Your task to perform on an android device: Search for macbook pro 15 inch on newegg, select the first entry, add it to the cart, then select checkout. Image 0: 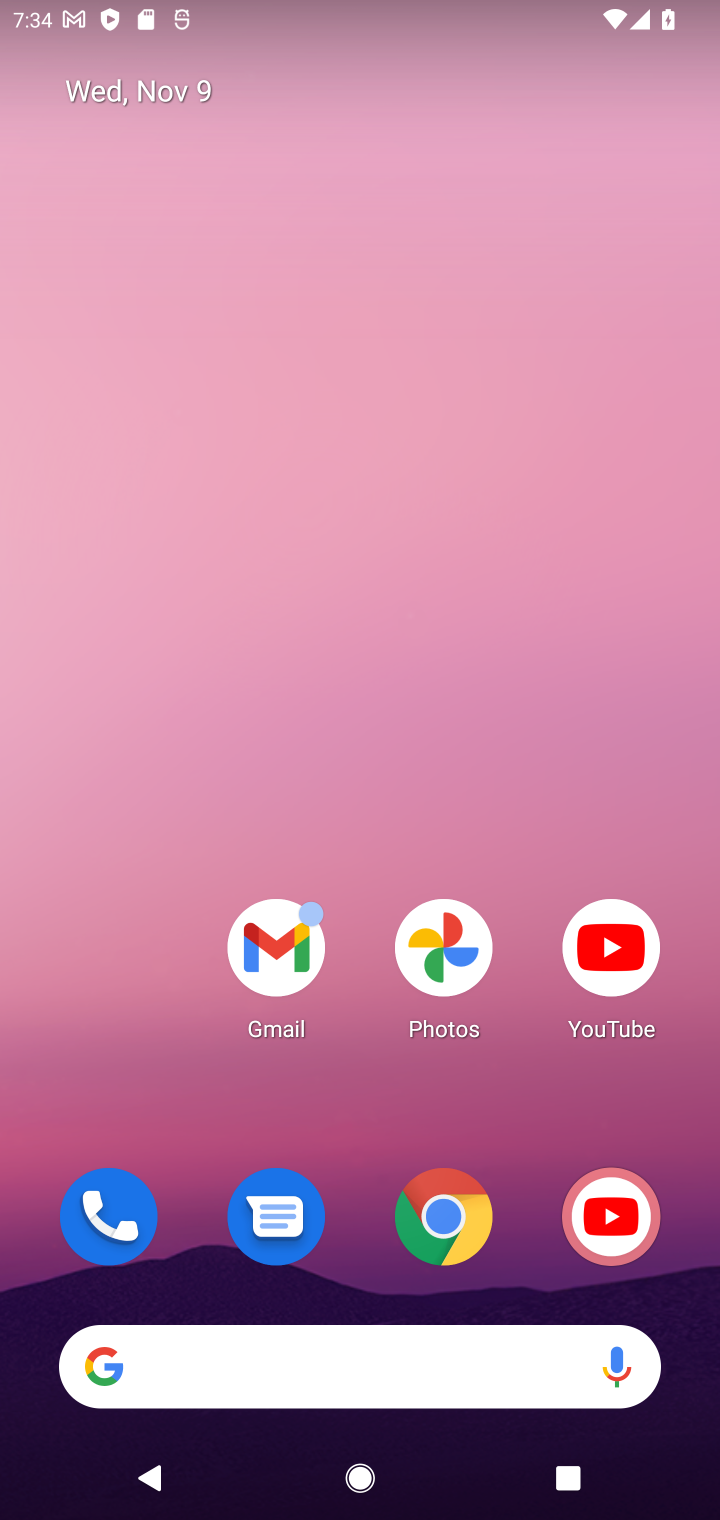
Step 0: drag from (358, 1093) to (446, 4)
Your task to perform on an android device: Search for macbook pro 15 inch on newegg, select the first entry, add it to the cart, then select checkout. Image 1: 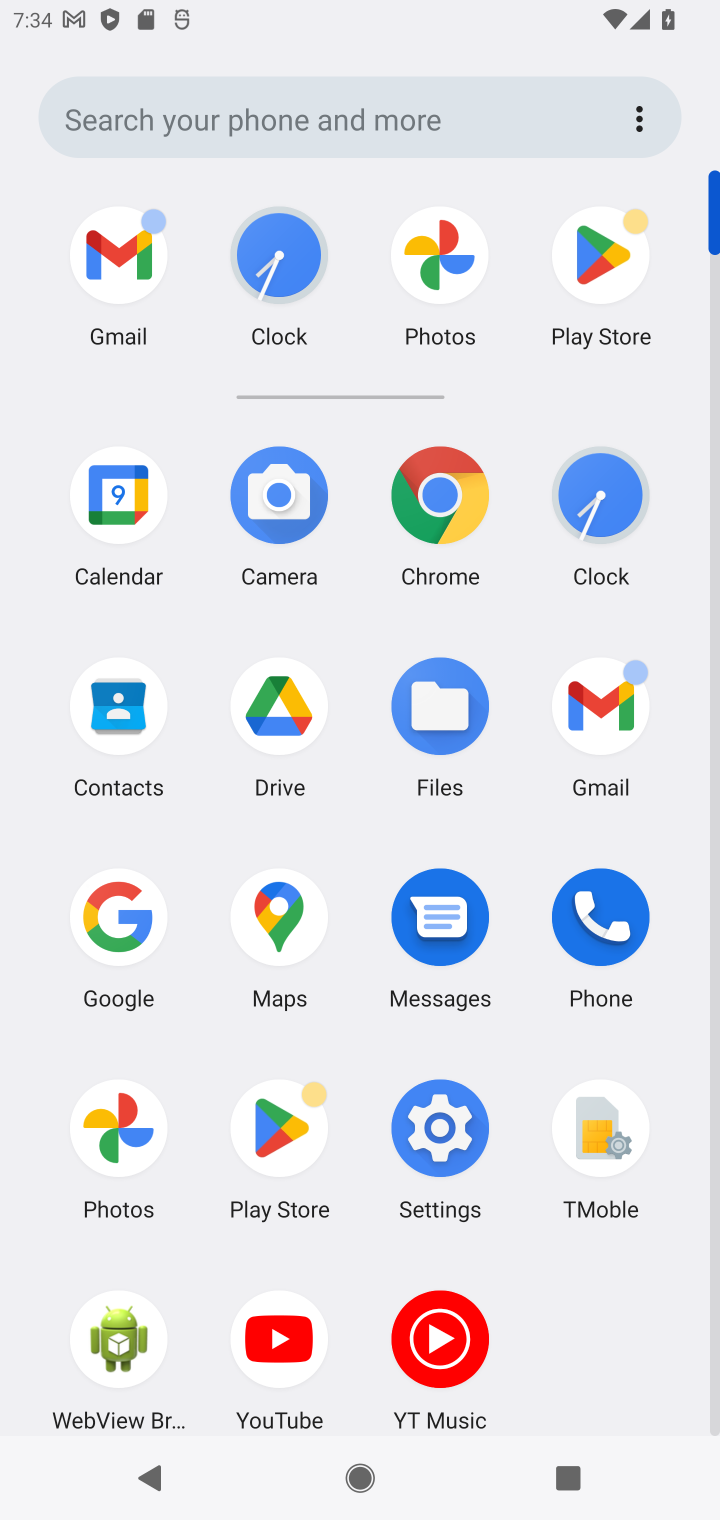
Step 1: click (446, 505)
Your task to perform on an android device: Search for macbook pro 15 inch on newegg, select the first entry, add it to the cart, then select checkout. Image 2: 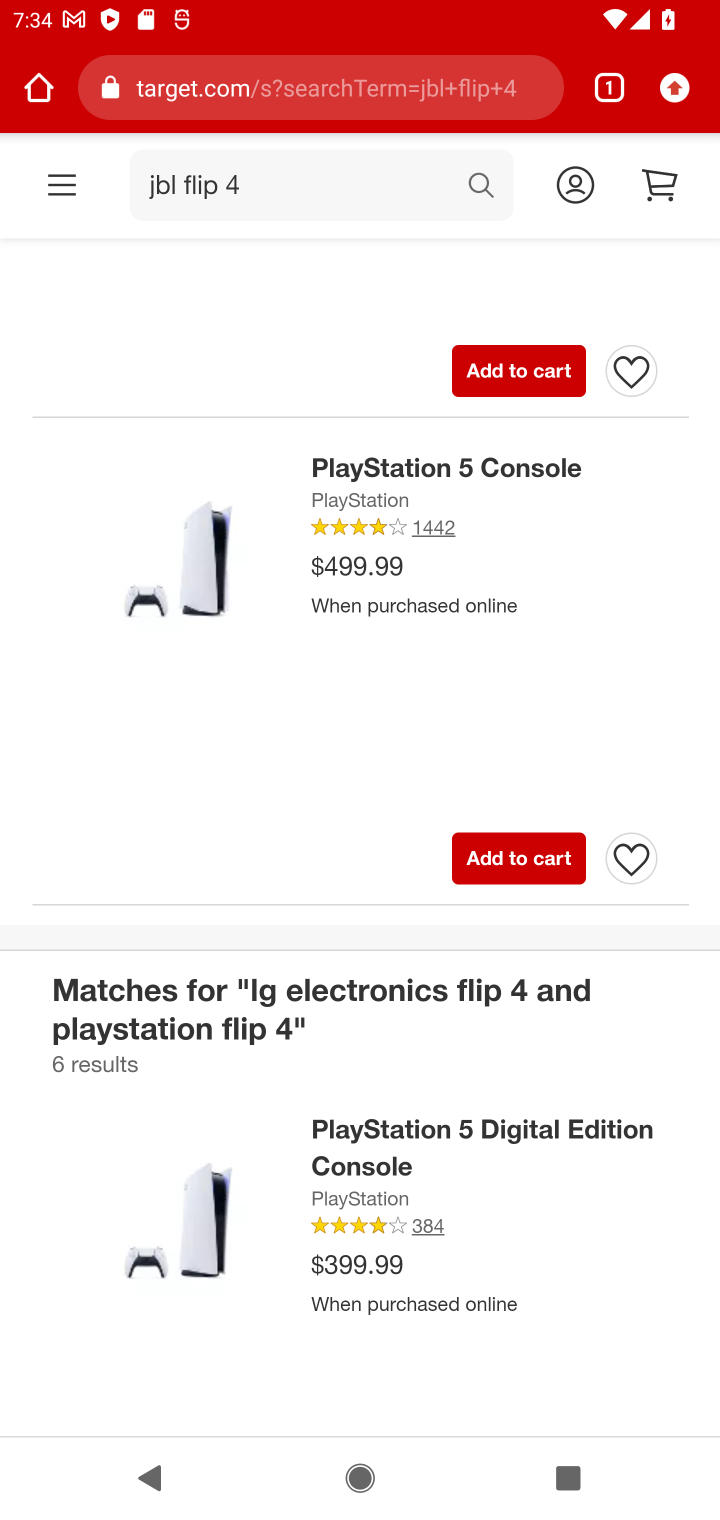
Step 2: click (382, 94)
Your task to perform on an android device: Search for macbook pro 15 inch on newegg, select the first entry, add it to the cart, then select checkout. Image 3: 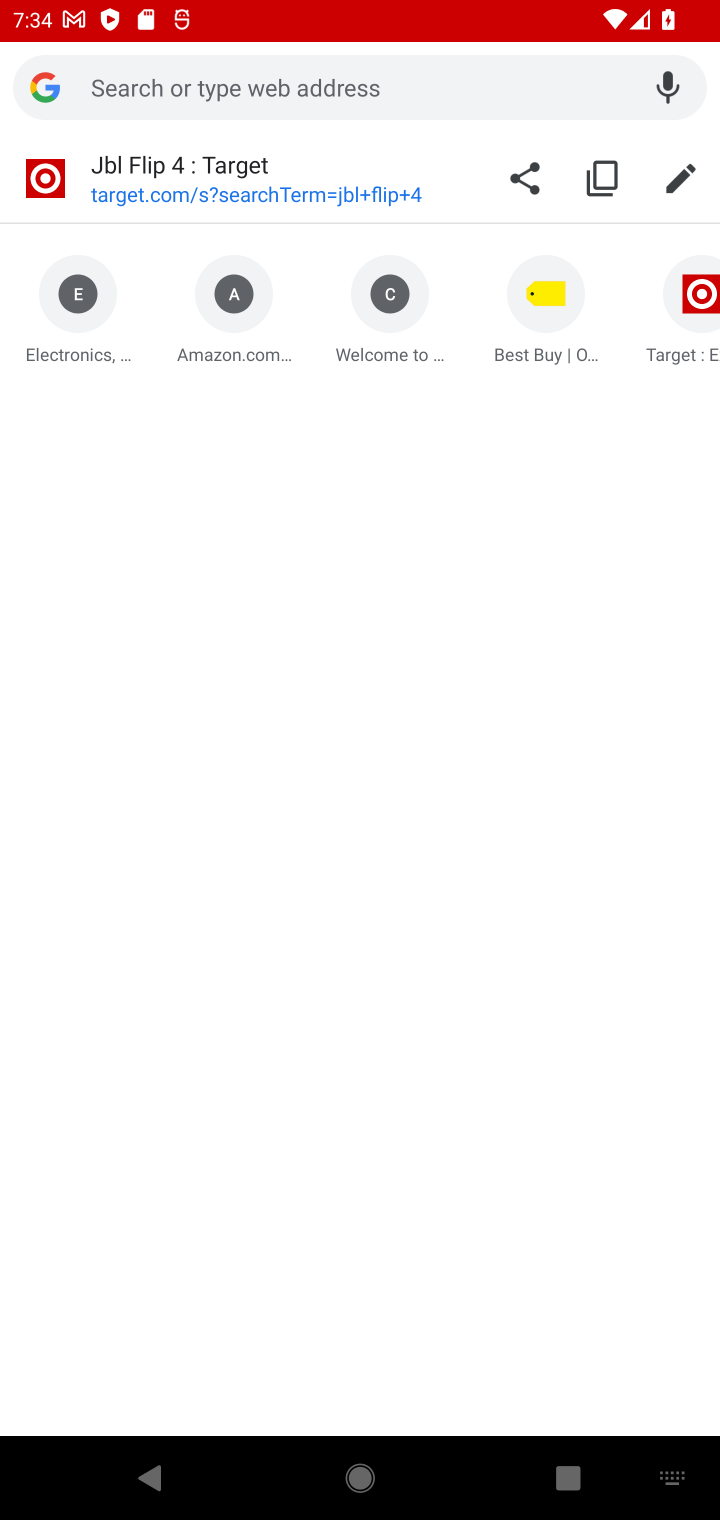
Step 3: type "newegg.com"
Your task to perform on an android device: Search for macbook pro 15 inch on newegg, select the first entry, add it to the cart, then select checkout. Image 4: 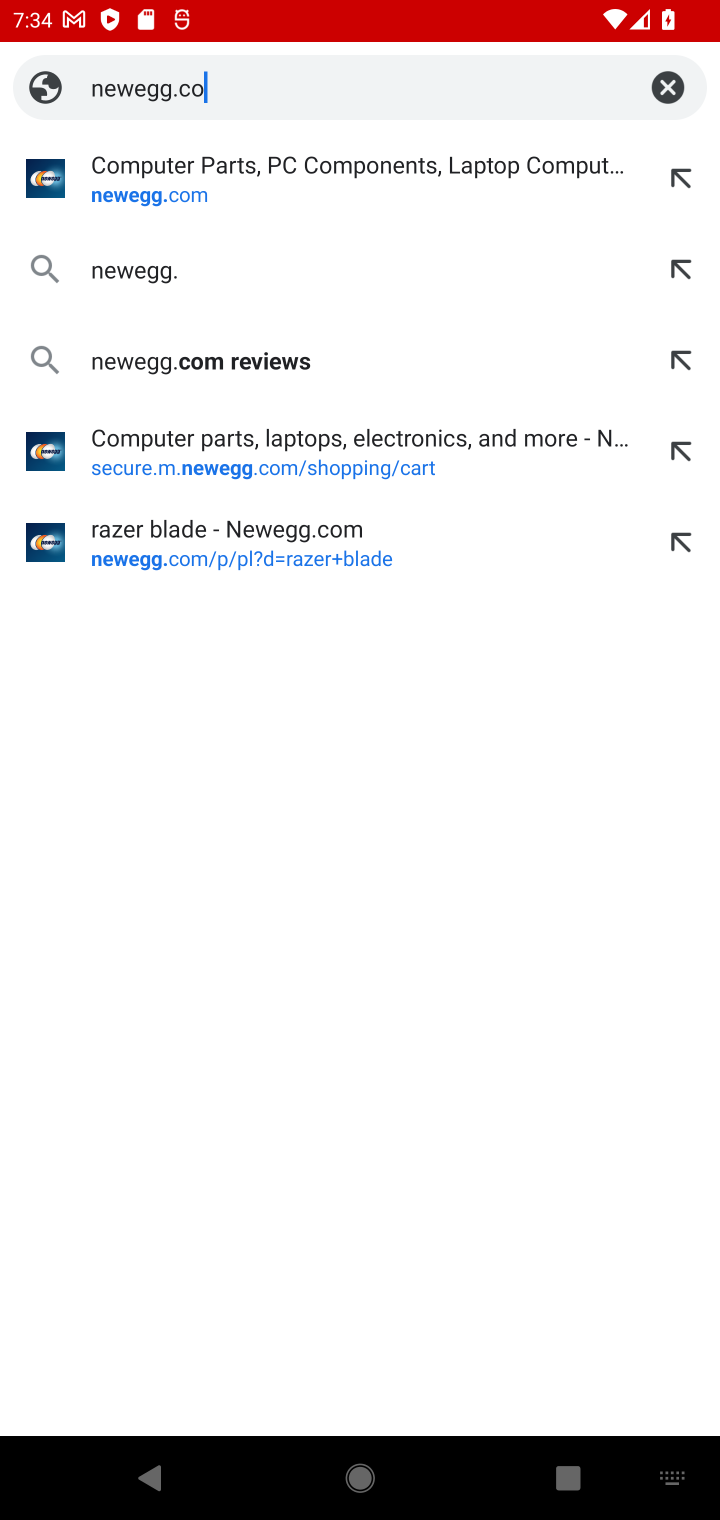
Step 4: press enter
Your task to perform on an android device: Search for macbook pro 15 inch on newegg, select the first entry, add it to the cart, then select checkout. Image 5: 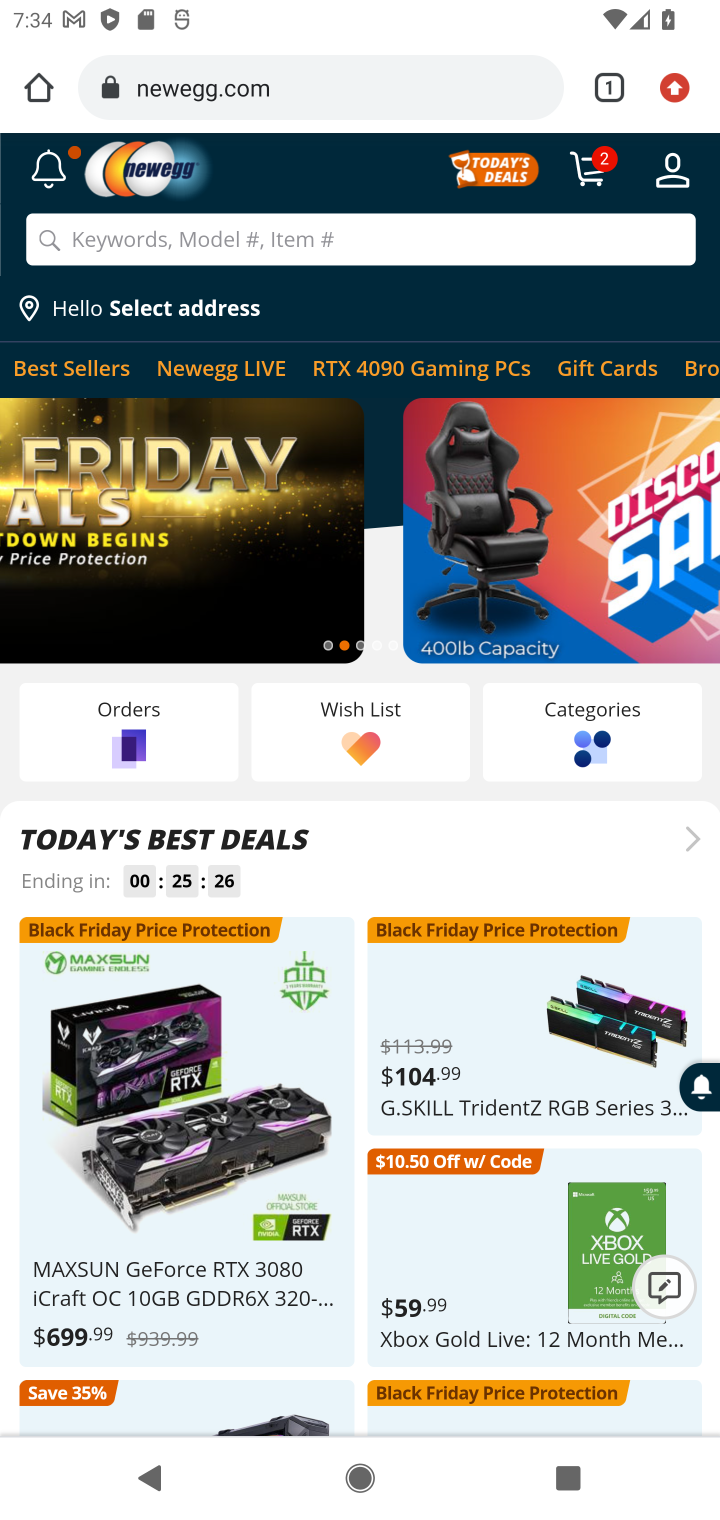
Step 5: click (390, 247)
Your task to perform on an android device: Search for macbook pro 15 inch on newegg, select the first entry, add it to the cart, then select checkout. Image 6: 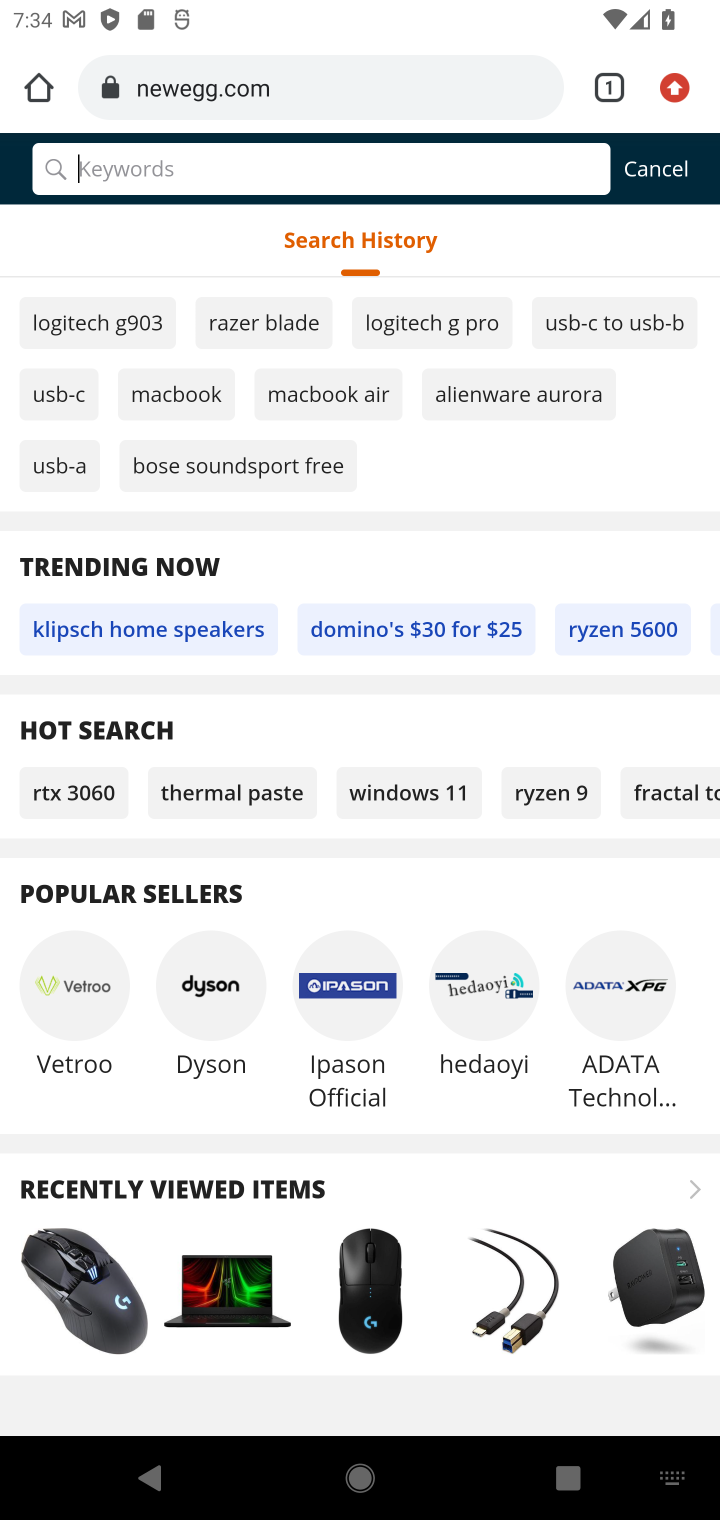
Step 6: type "macbook pro 15 inch"
Your task to perform on an android device: Search for macbook pro 15 inch on newegg, select the first entry, add it to the cart, then select checkout. Image 7: 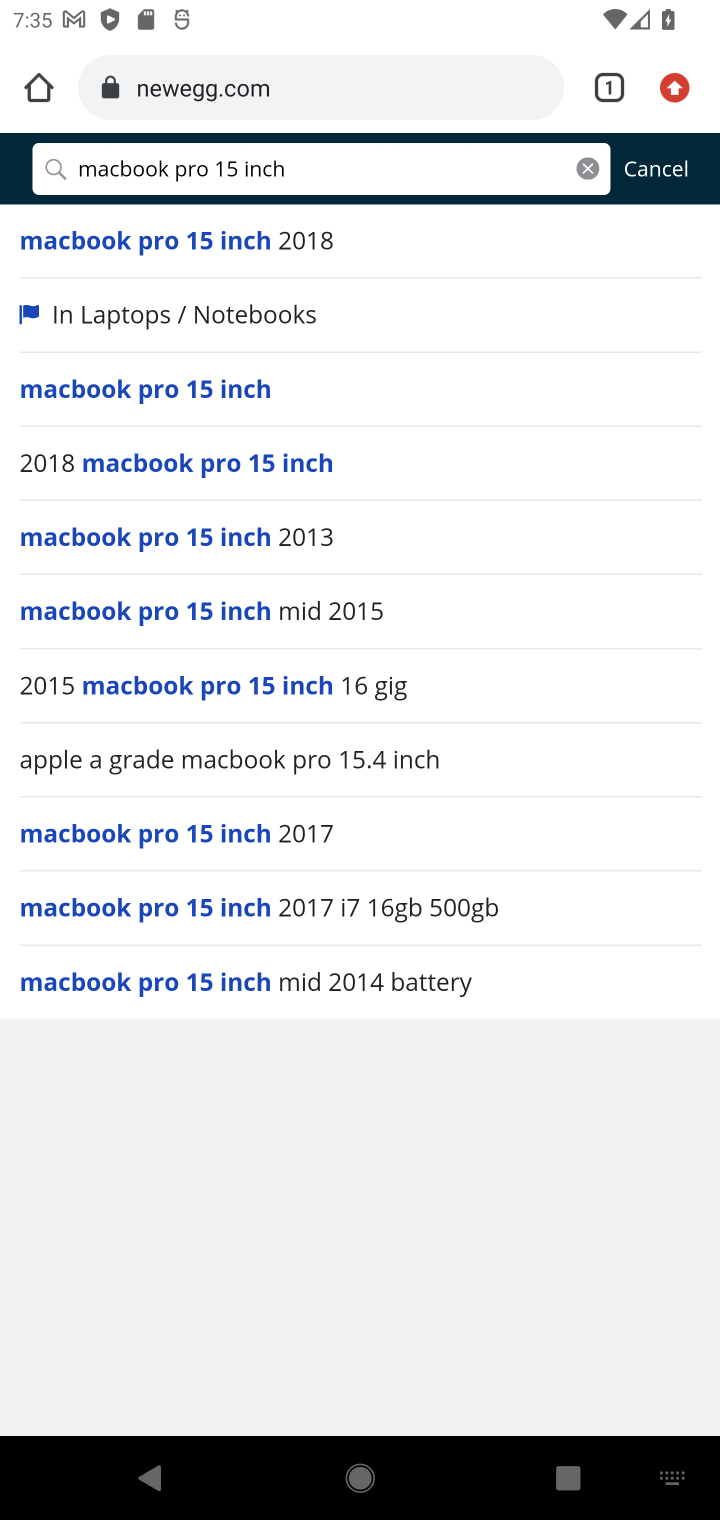
Step 7: press enter
Your task to perform on an android device: Search for macbook pro 15 inch on newegg, select the first entry, add it to the cart, then select checkout. Image 8: 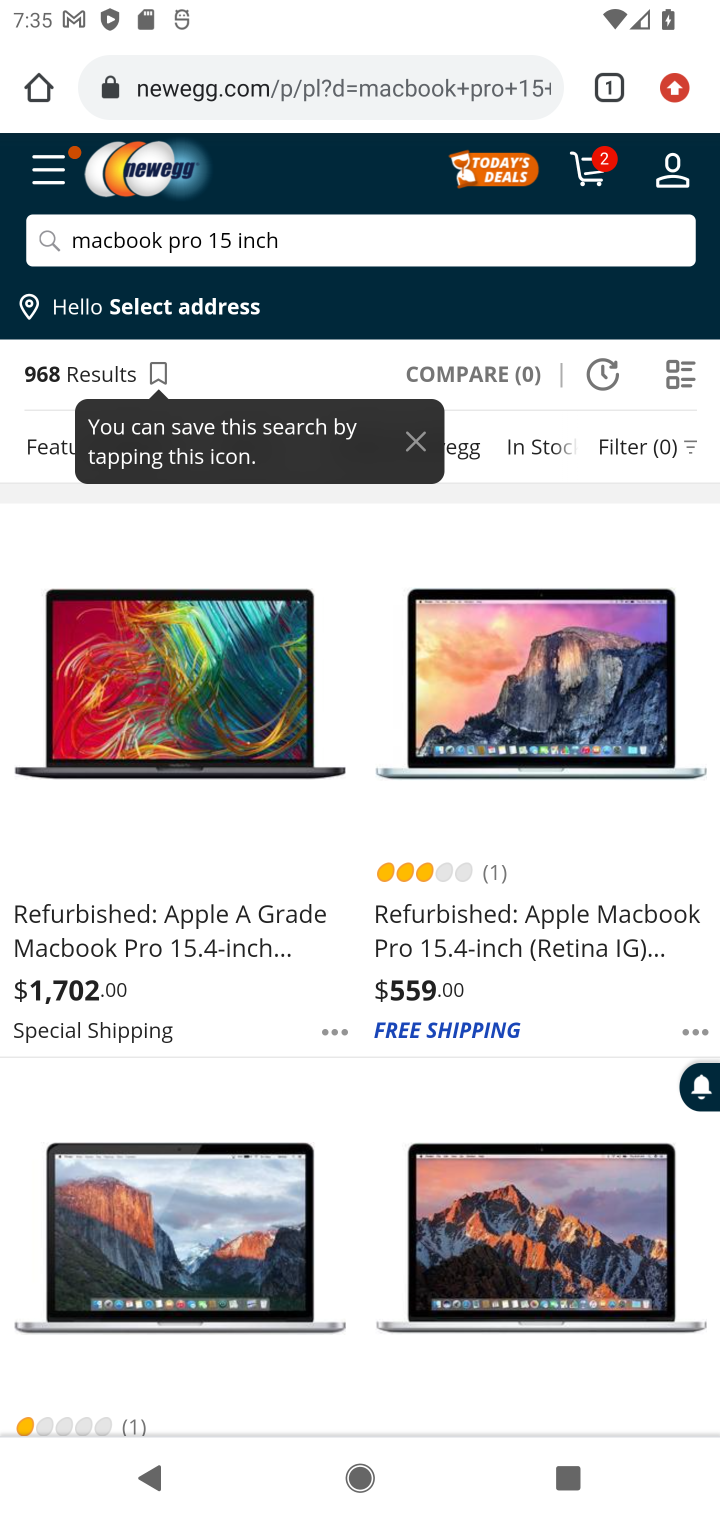
Step 8: drag from (353, 1318) to (497, 654)
Your task to perform on an android device: Search for macbook pro 15 inch on newegg, select the first entry, add it to the cart, then select checkout. Image 9: 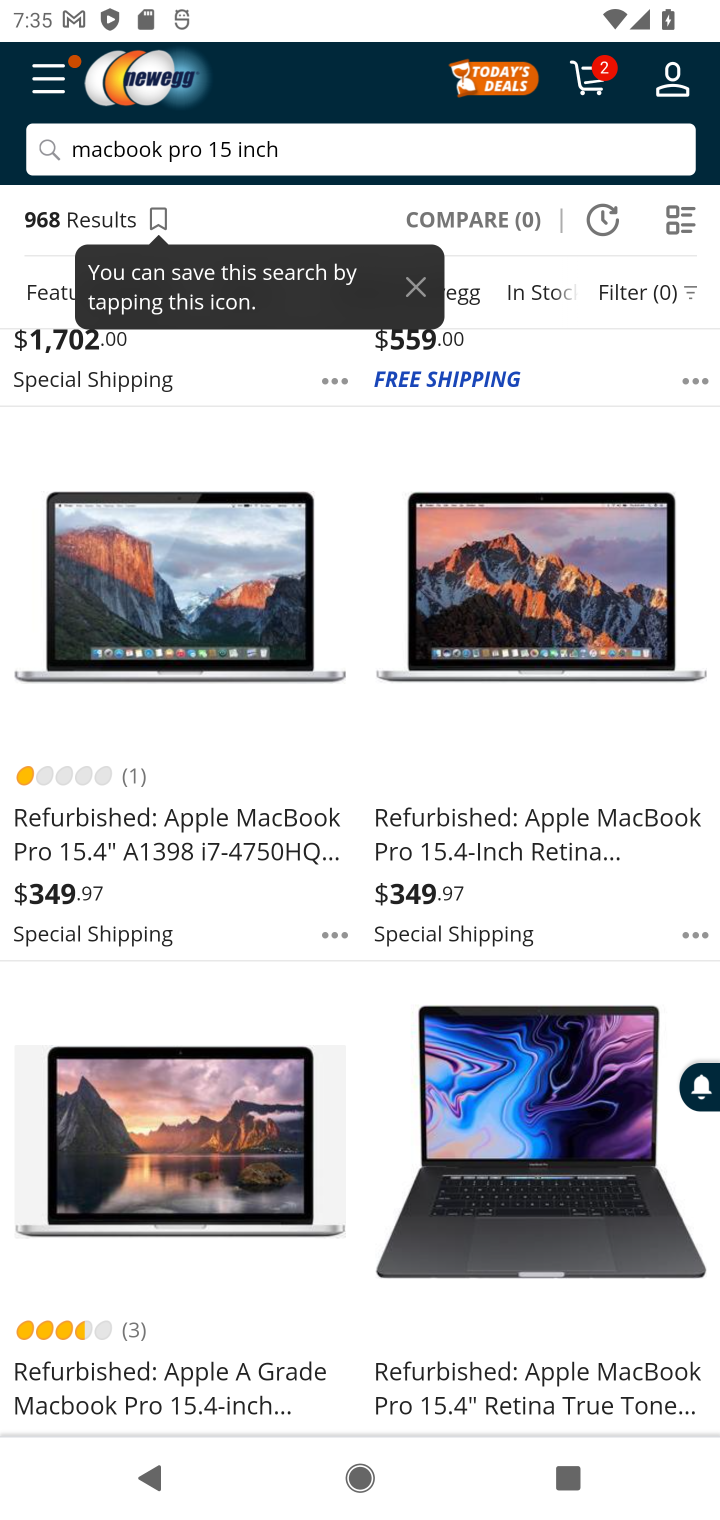
Step 9: drag from (417, 1256) to (438, 627)
Your task to perform on an android device: Search for macbook pro 15 inch on newegg, select the first entry, add it to the cart, then select checkout. Image 10: 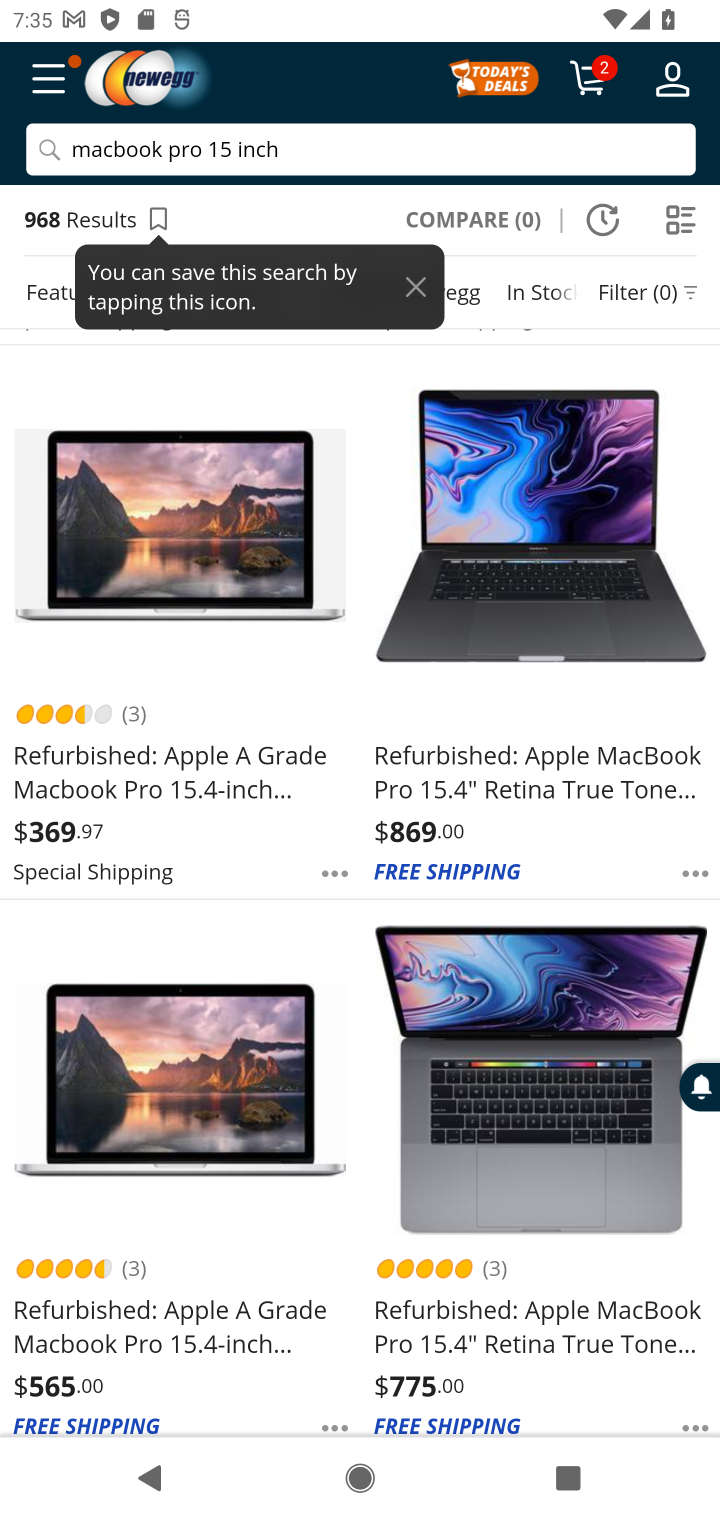
Step 10: drag from (562, 1253) to (604, 506)
Your task to perform on an android device: Search for macbook pro 15 inch on newegg, select the first entry, add it to the cart, then select checkout. Image 11: 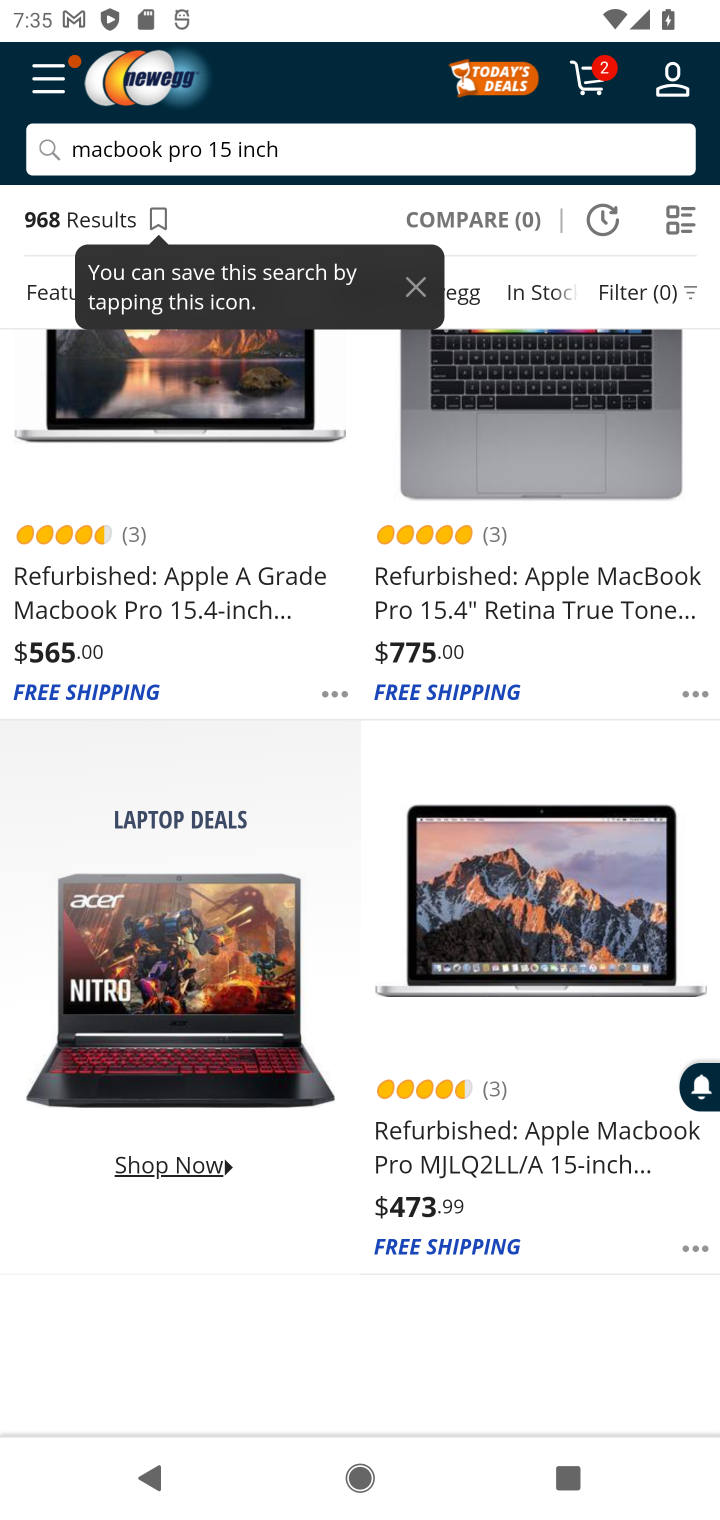
Step 11: drag from (580, 1230) to (686, 764)
Your task to perform on an android device: Search for macbook pro 15 inch on newegg, select the first entry, add it to the cart, then select checkout. Image 12: 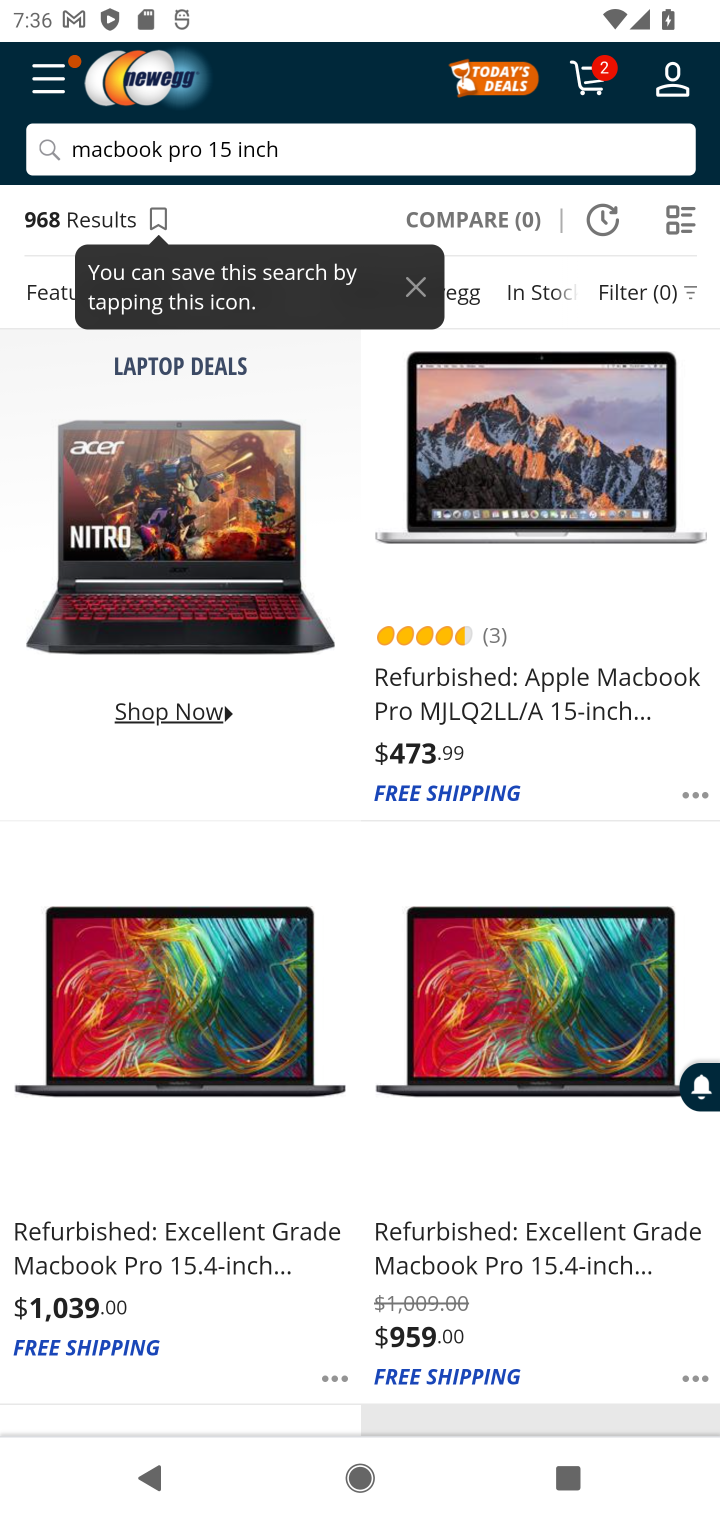
Step 12: drag from (405, 438) to (322, 1243)
Your task to perform on an android device: Search for macbook pro 15 inch on newegg, select the first entry, add it to the cart, then select checkout. Image 13: 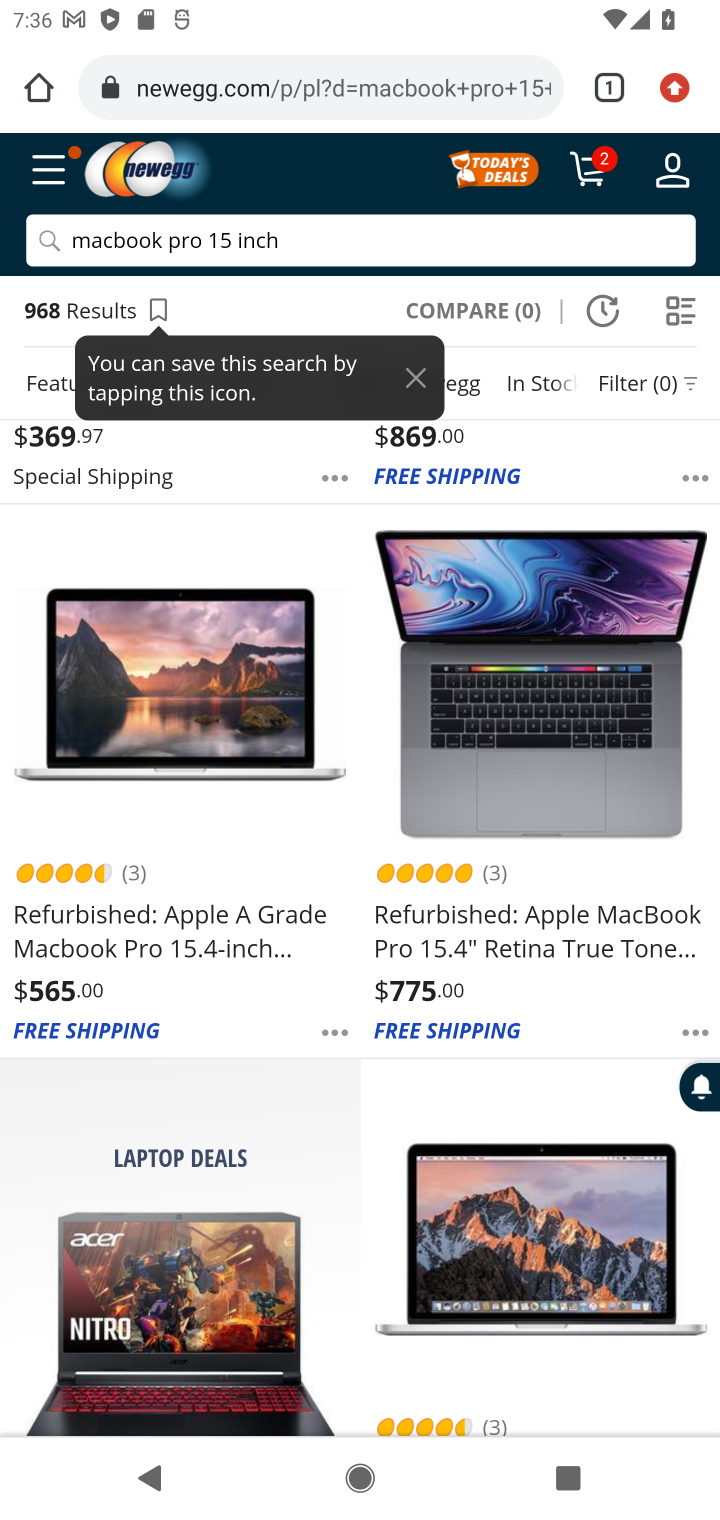
Step 13: drag from (557, 677) to (550, 1192)
Your task to perform on an android device: Search for macbook pro 15 inch on newegg, select the first entry, add it to the cart, then select checkout. Image 14: 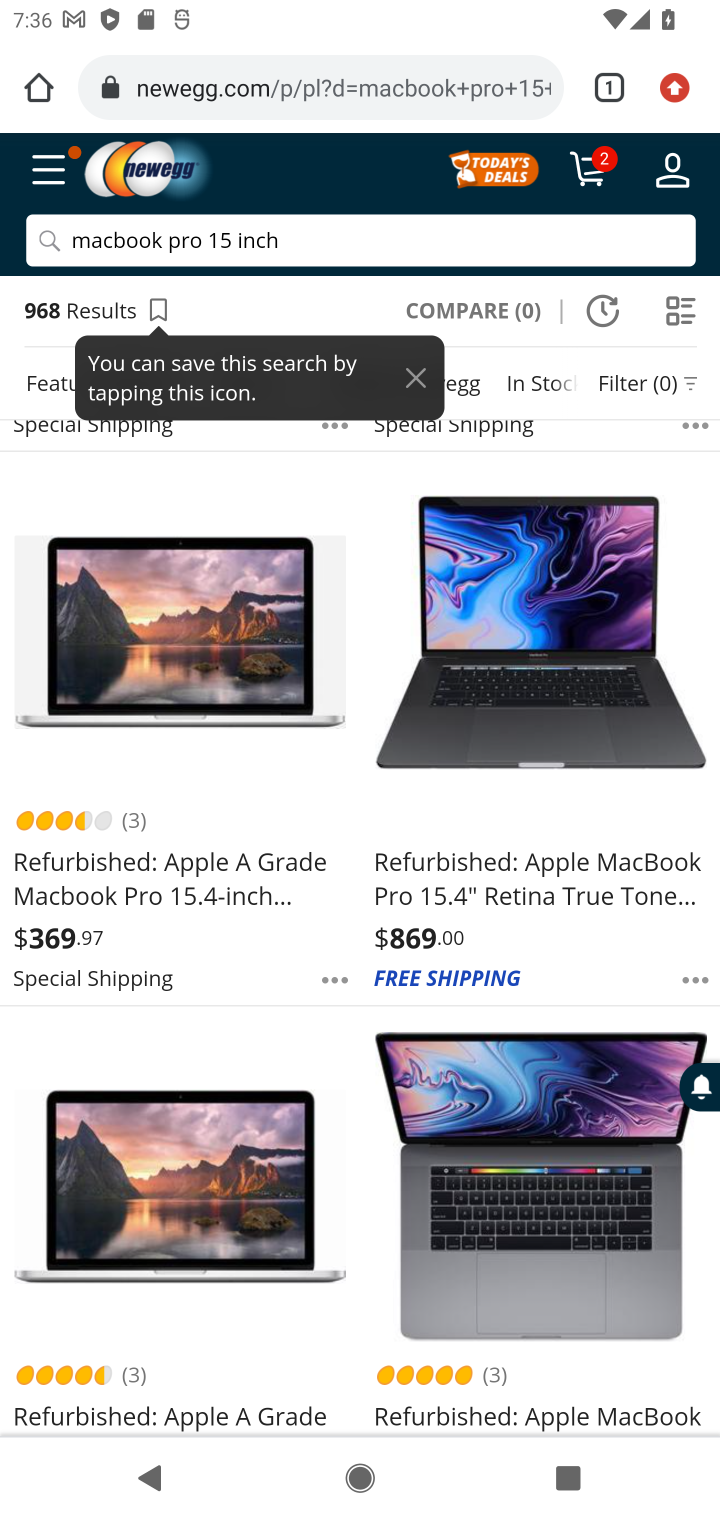
Step 14: drag from (566, 755) to (586, 1156)
Your task to perform on an android device: Search for macbook pro 15 inch on newegg, select the first entry, add it to the cart, then select checkout. Image 15: 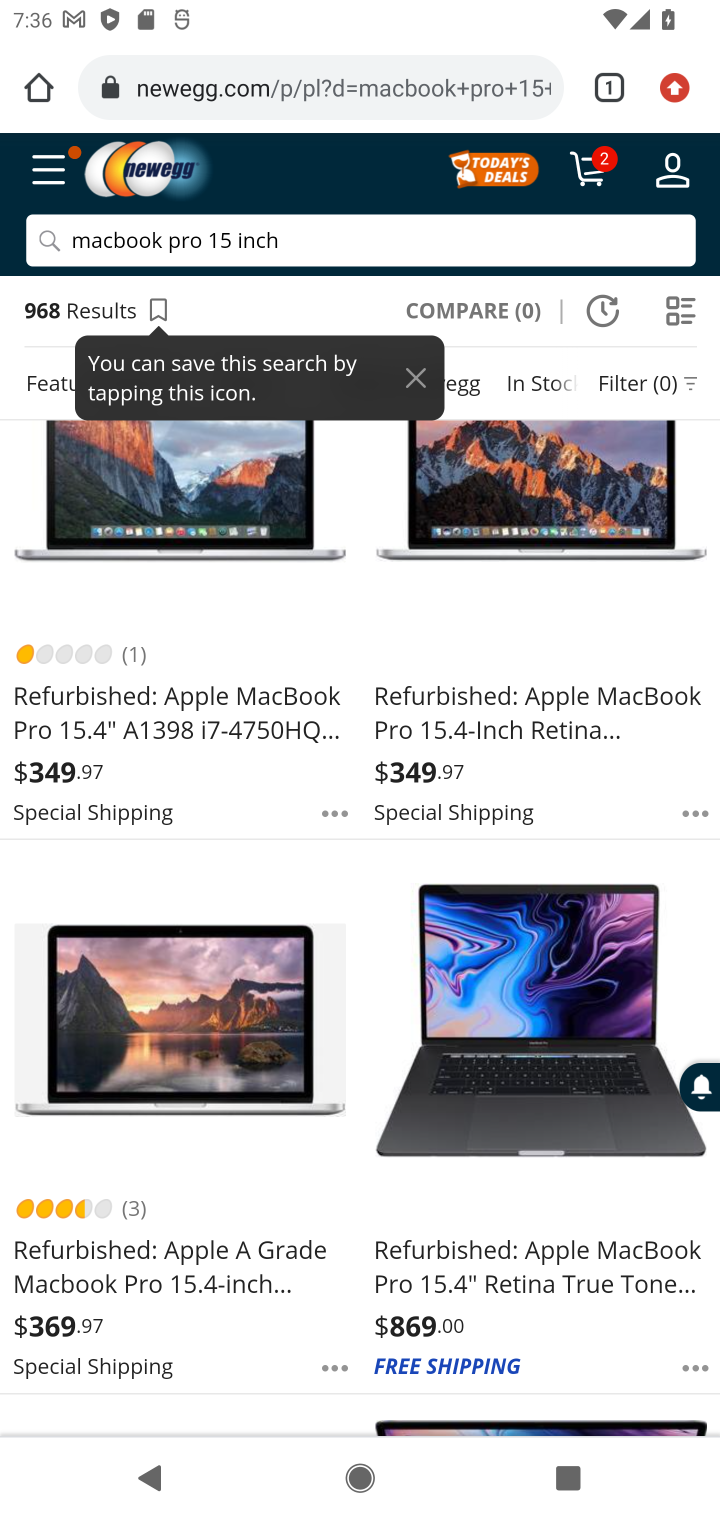
Step 15: drag from (435, 705) to (535, 1373)
Your task to perform on an android device: Search for macbook pro 15 inch on newegg, select the first entry, add it to the cart, then select checkout. Image 16: 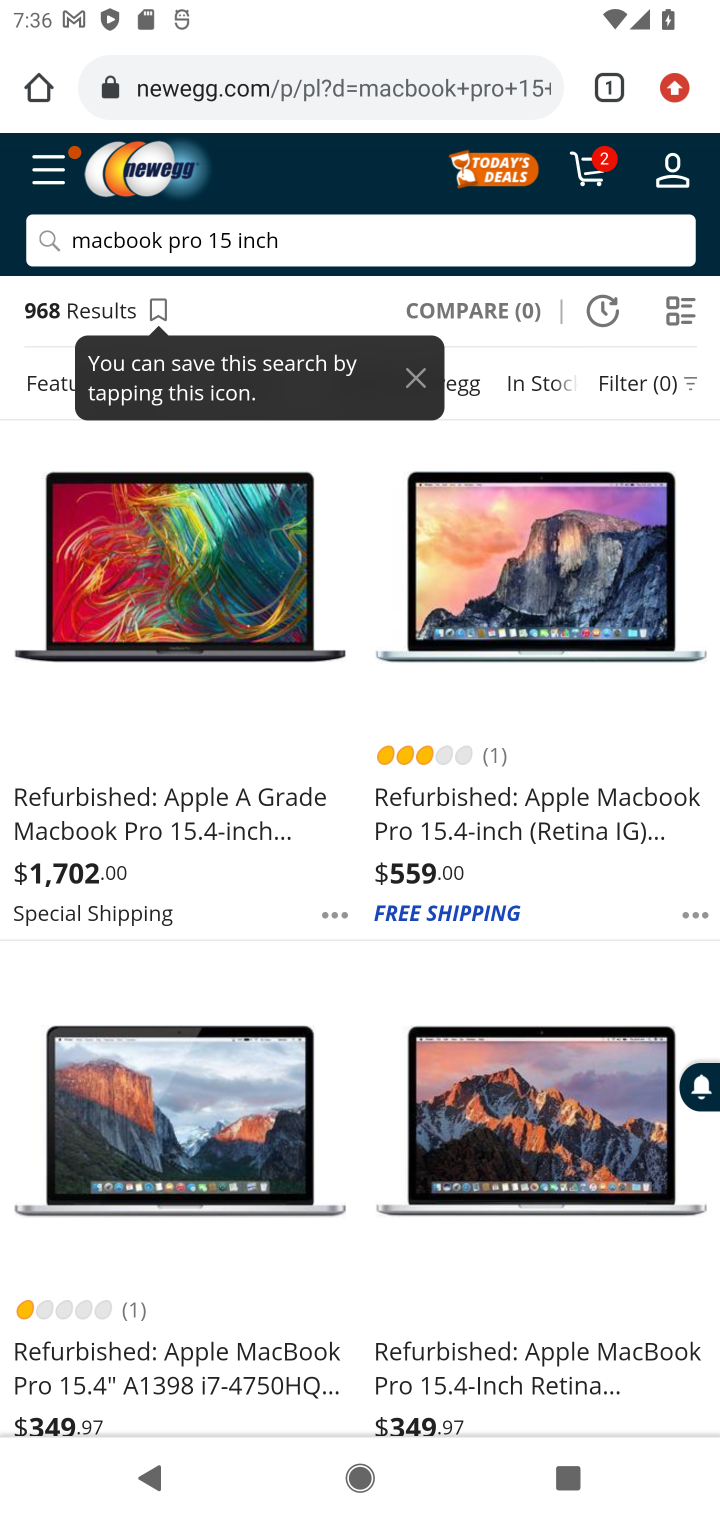
Step 16: drag from (534, 452) to (566, 1141)
Your task to perform on an android device: Search for macbook pro 15 inch on newegg, select the first entry, add it to the cart, then select checkout. Image 17: 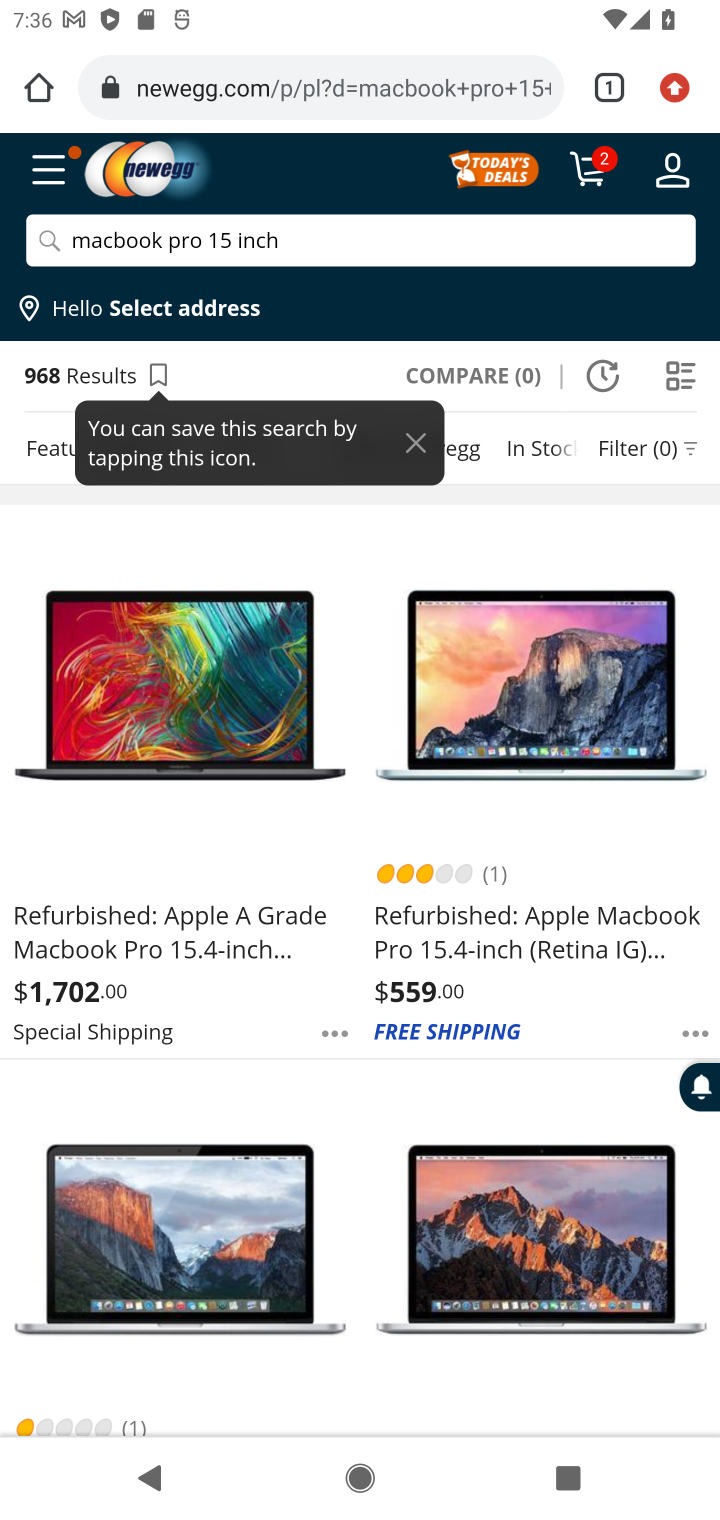
Step 17: drag from (412, 597) to (432, 1119)
Your task to perform on an android device: Search for macbook pro 15 inch on newegg, select the first entry, add it to the cart, then select checkout. Image 18: 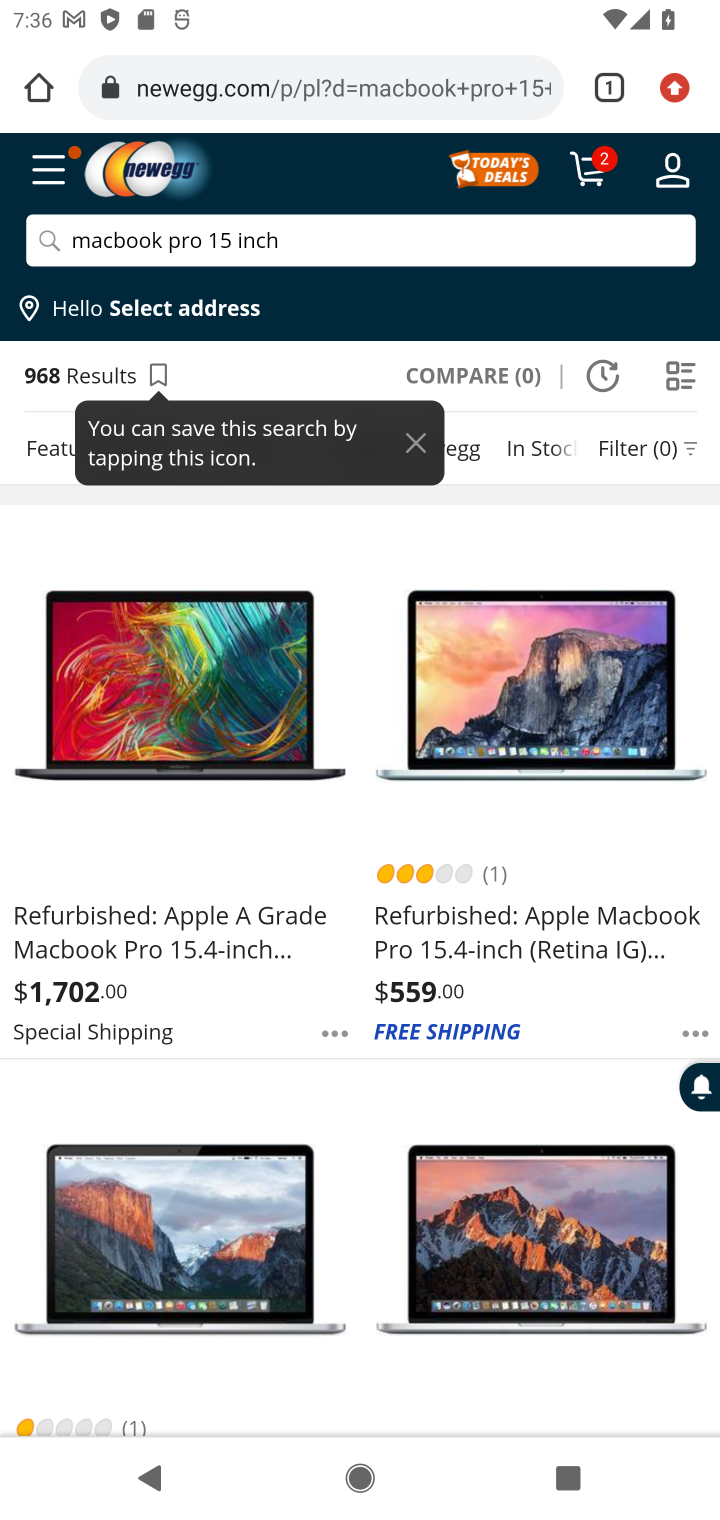
Step 18: click (182, 929)
Your task to perform on an android device: Search for macbook pro 15 inch on newegg, select the first entry, add it to the cart, then select checkout. Image 19: 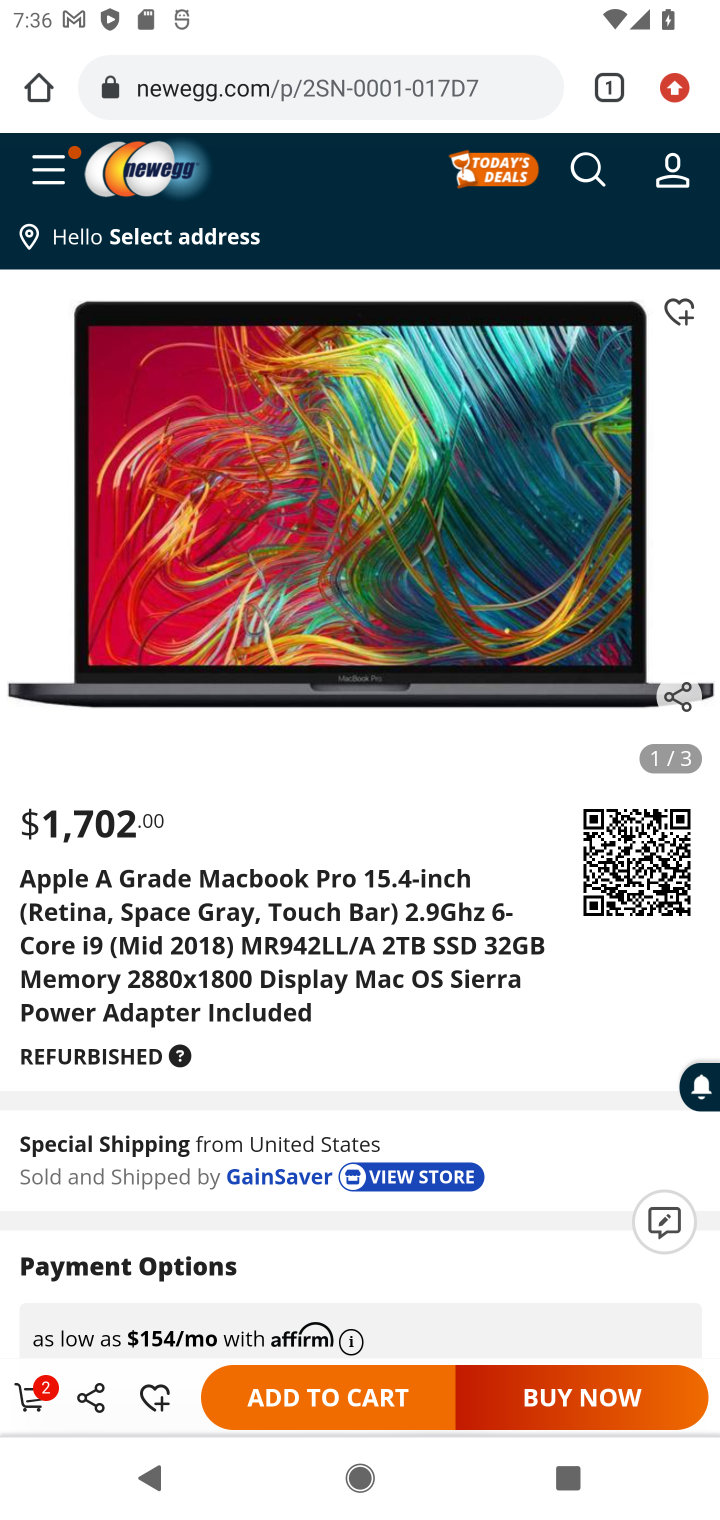
Step 19: click (360, 1389)
Your task to perform on an android device: Search for macbook pro 15 inch on newegg, select the first entry, add it to the cart, then select checkout. Image 20: 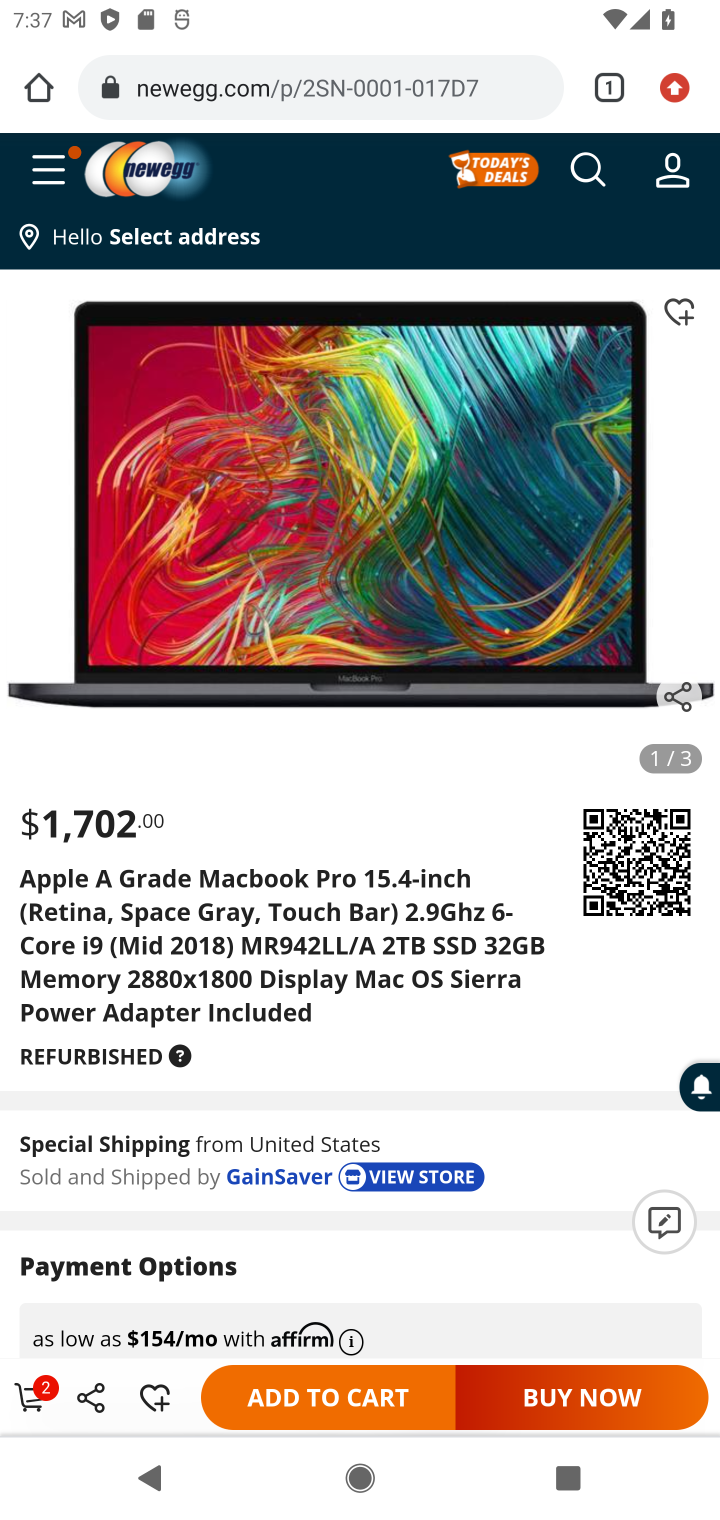
Step 20: drag from (552, 1050) to (547, 407)
Your task to perform on an android device: Search for macbook pro 15 inch on newegg, select the first entry, add it to the cart, then select checkout. Image 21: 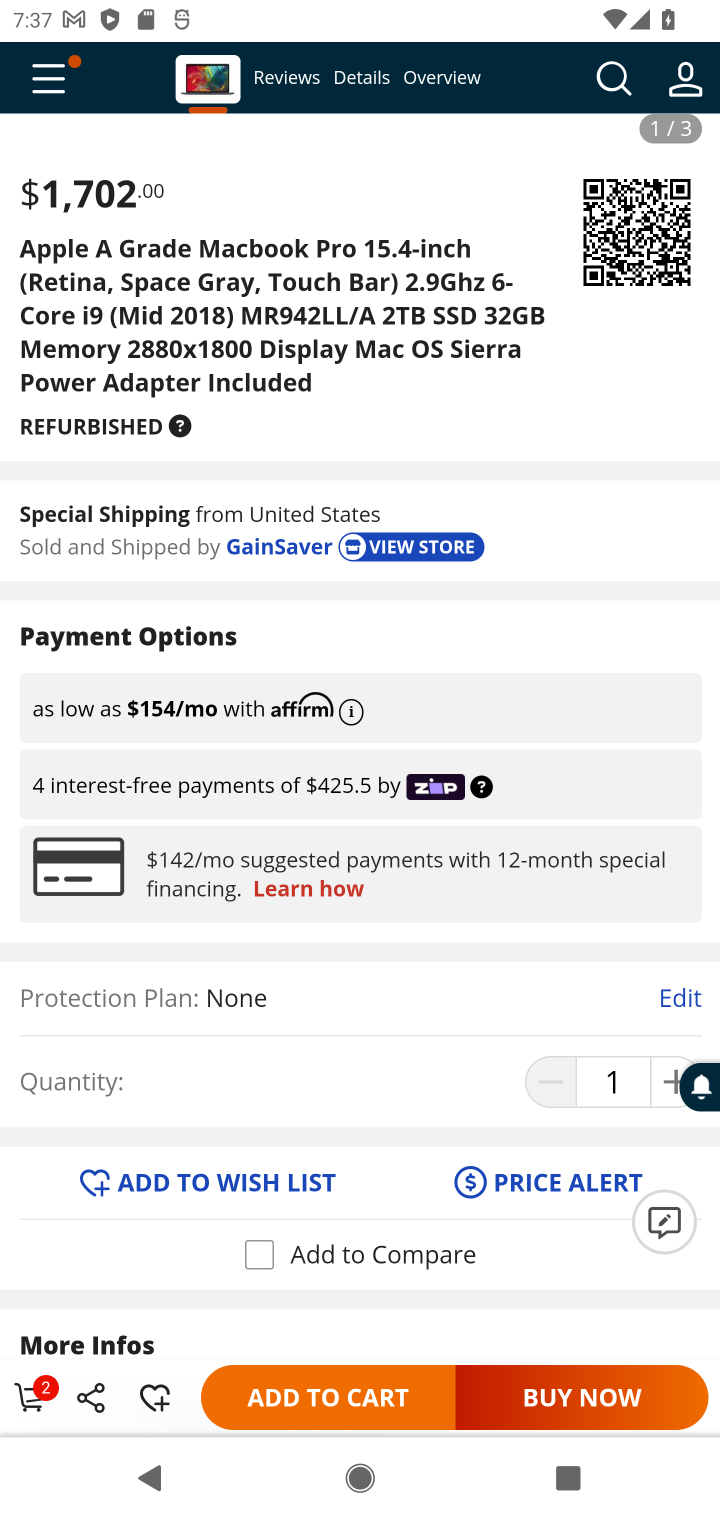
Step 21: click (334, 1413)
Your task to perform on an android device: Search for macbook pro 15 inch on newegg, select the first entry, add it to the cart, then select checkout. Image 22: 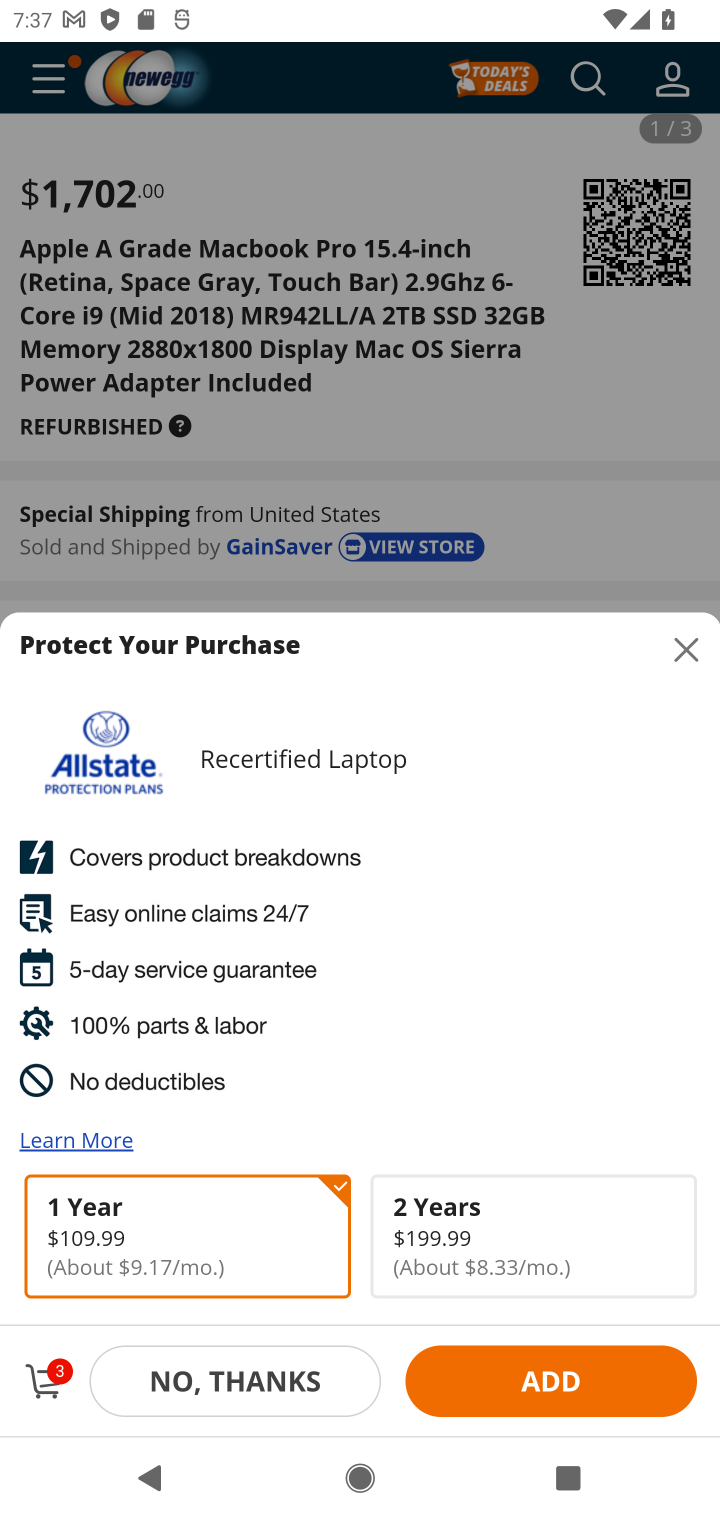
Step 22: click (39, 1378)
Your task to perform on an android device: Search for macbook pro 15 inch on newegg, select the first entry, add it to the cart, then select checkout. Image 23: 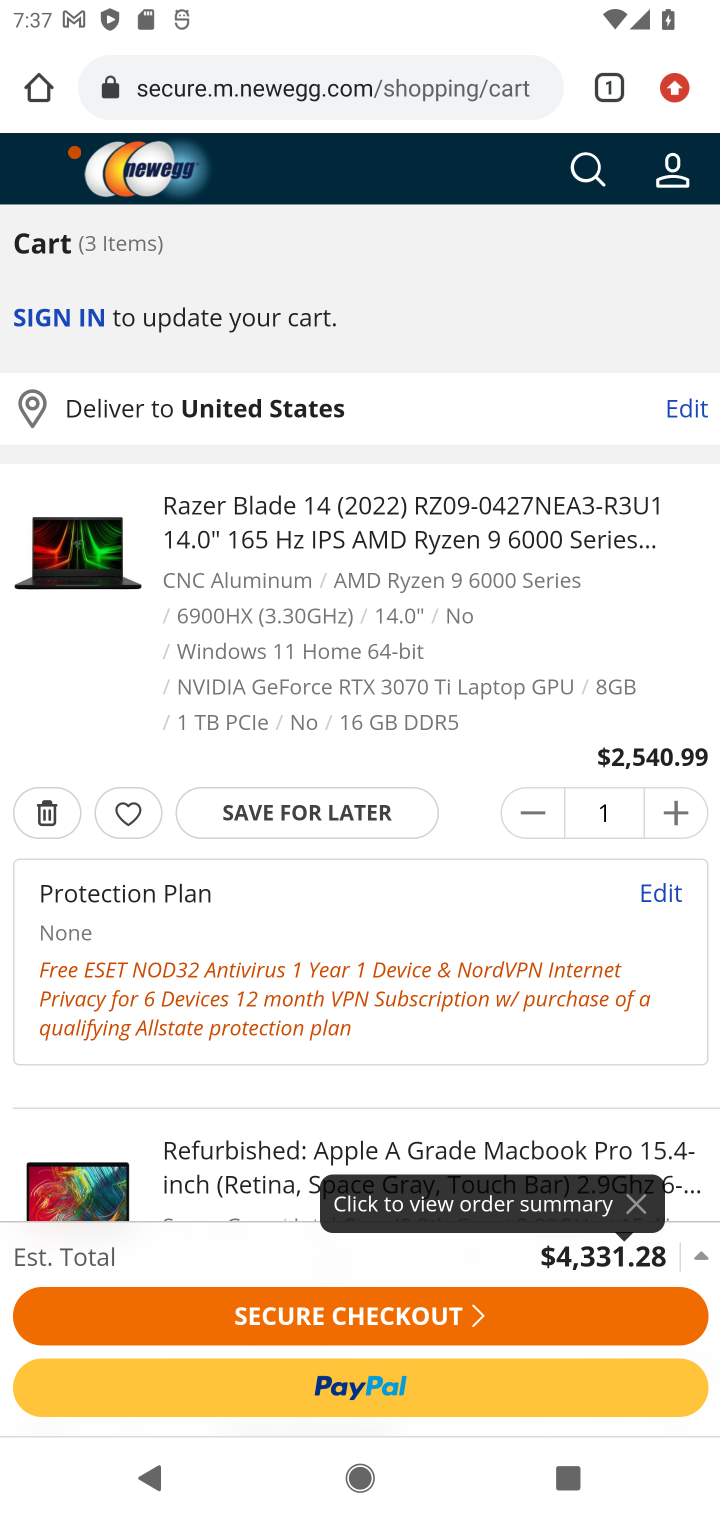
Step 23: click (363, 1316)
Your task to perform on an android device: Search for macbook pro 15 inch on newegg, select the first entry, add it to the cart, then select checkout. Image 24: 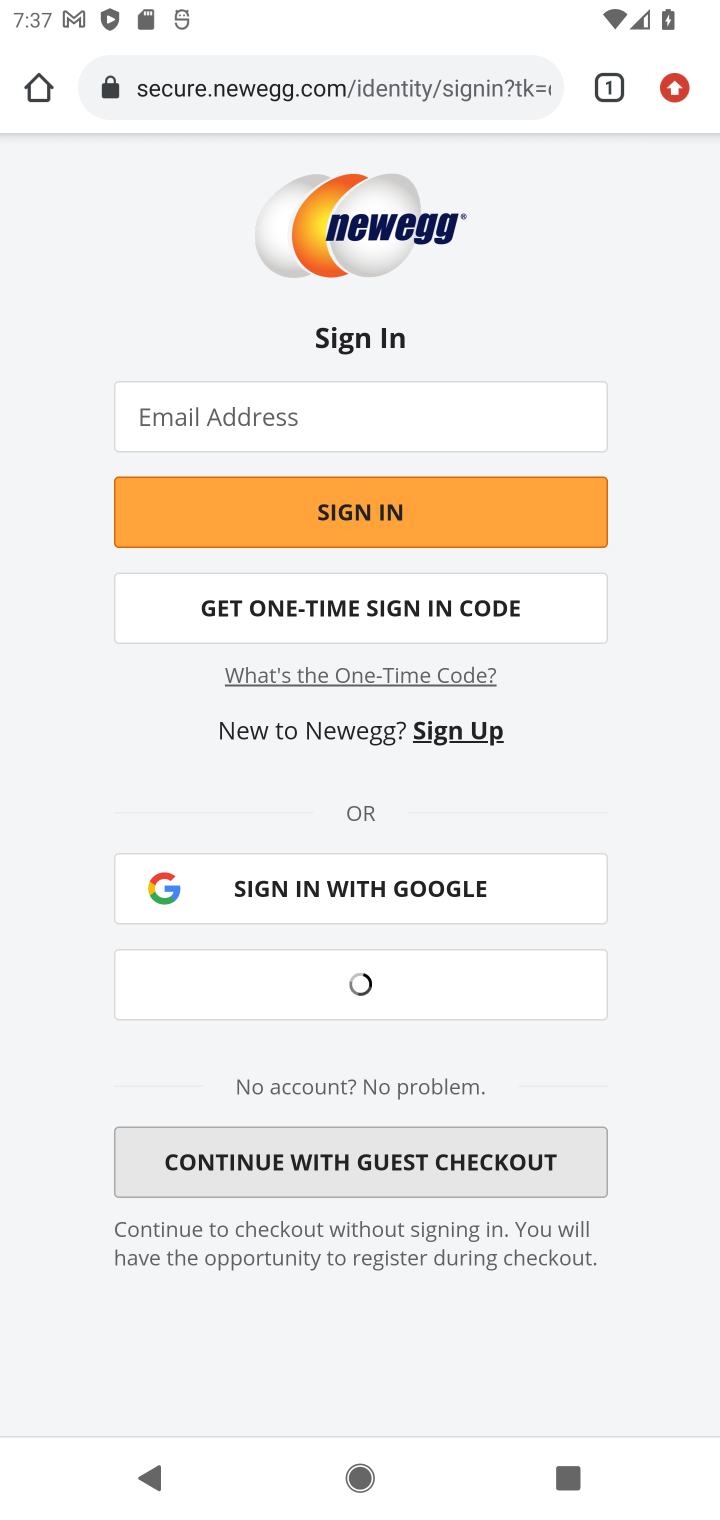
Step 24: task complete